Your task to perform on an android device: Open Google Image 0: 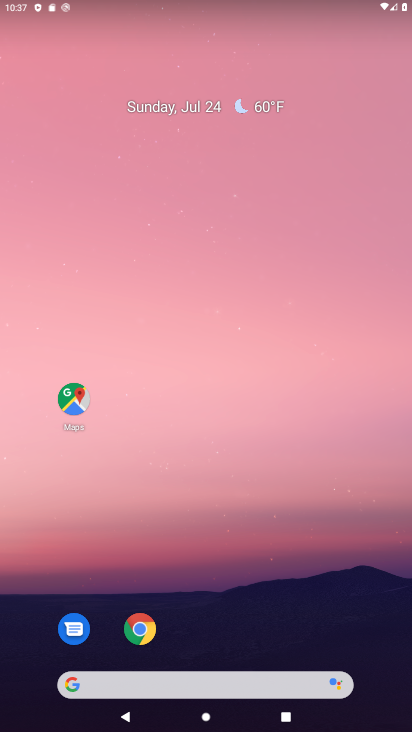
Step 0: drag from (283, 659) to (180, 175)
Your task to perform on an android device: Open Google Image 1: 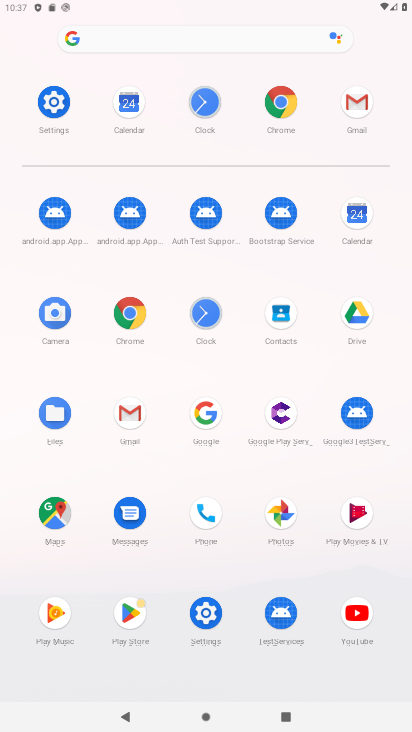
Step 1: click (187, 419)
Your task to perform on an android device: Open Google Image 2: 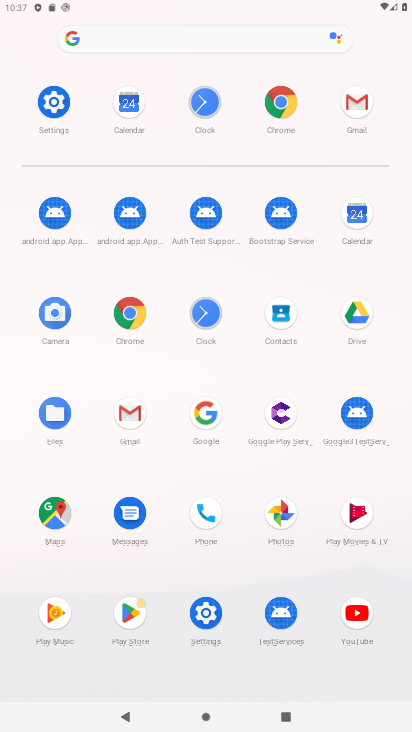
Step 2: click (195, 425)
Your task to perform on an android device: Open Google Image 3: 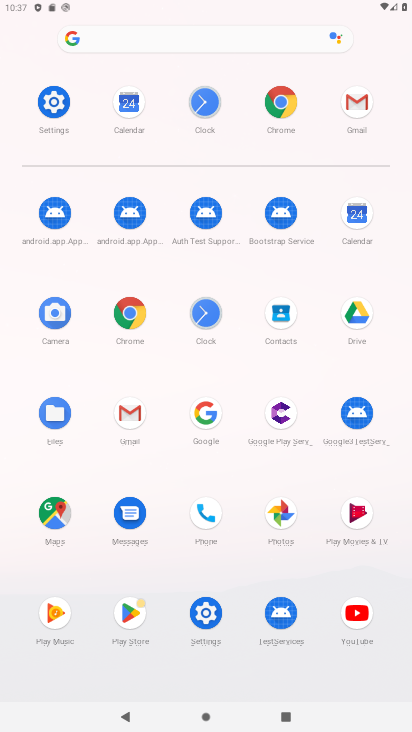
Step 3: click (204, 425)
Your task to perform on an android device: Open Google Image 4: 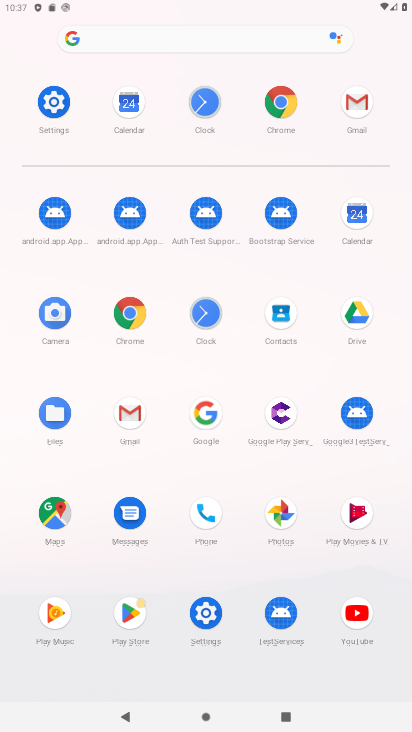
Step 4: click (210, 417)
Your task to perform on an android device: Open Google Image 5: 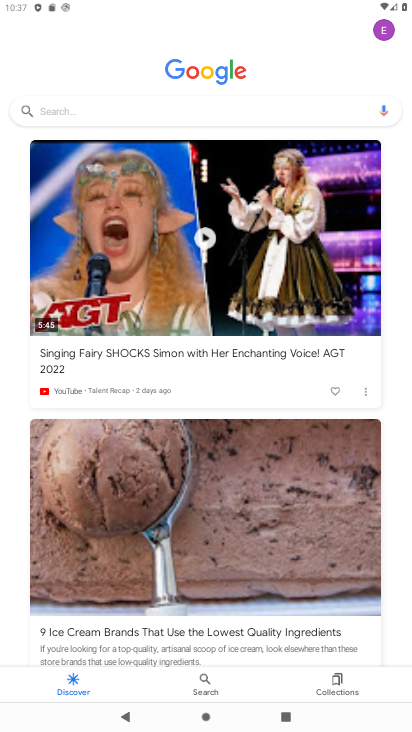
Step 5: task complete